Your task to perform on an android device: star an email in the gmail app Image 0: 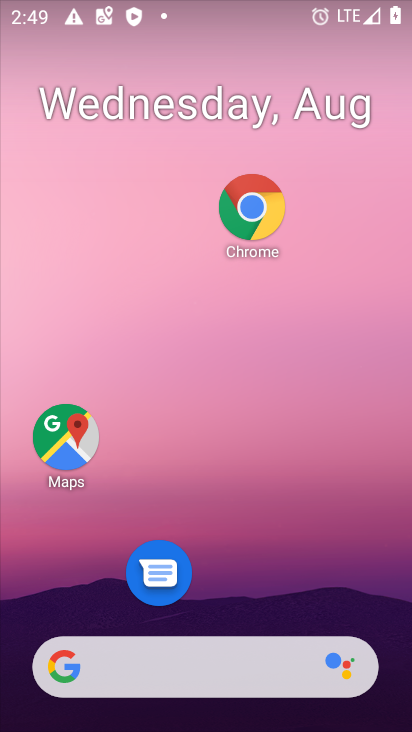
Step 0: drag from (221, 636) to (242, 222)
Your task to perform on an android device: star an email in the gmail app Image 1: 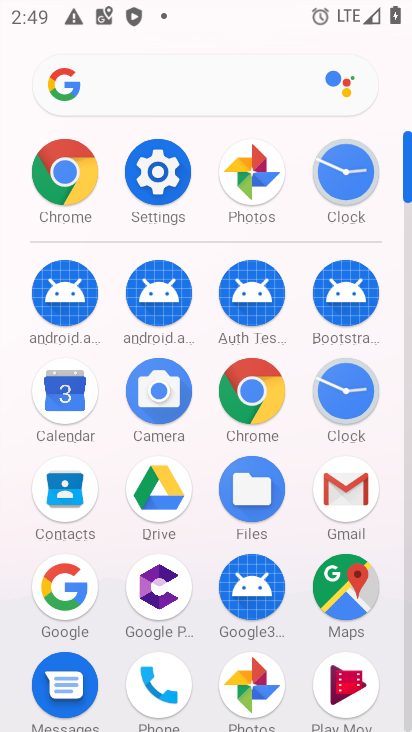
Step 1: click (365, 495)
Your task to perform on an android device: star an email in the gmail app Image 2: 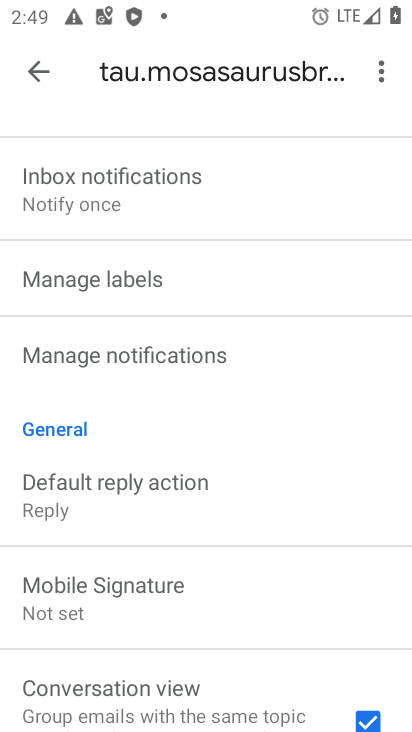
Step 2: click (37, 70)
Your task to perform on an android device: star an email in the gmail app Image 3: 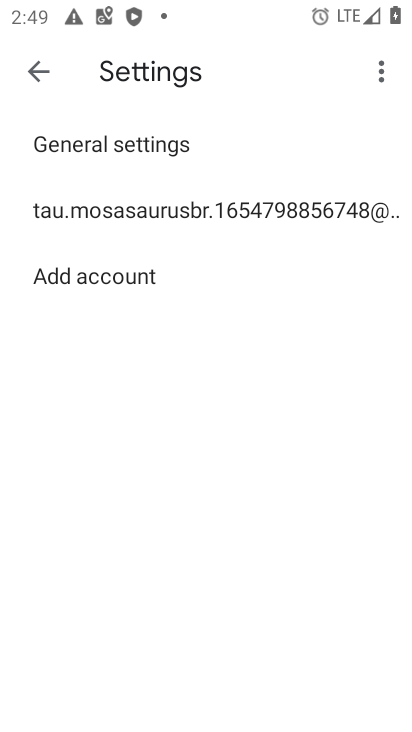
Step 3: click (37, 70)
Your task to perform on an android device: star an email in the gmail app Image 4: 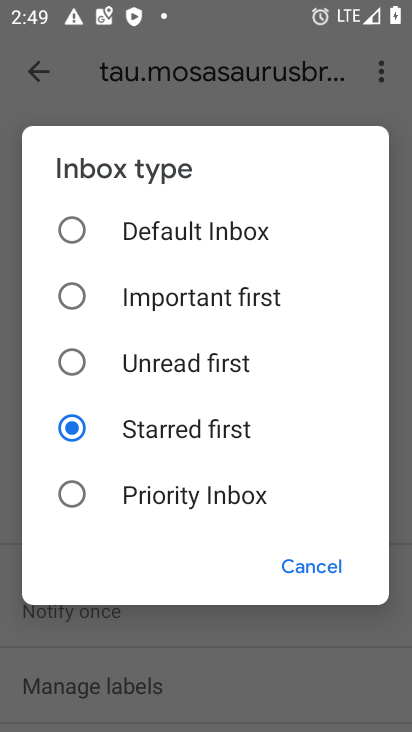
Step 4: click (310, 558)
Your task to perform on an android device: star an email in the gmail app Image 5: 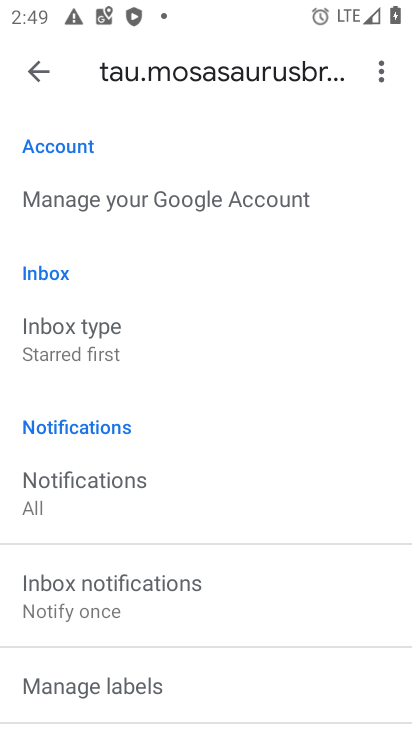
Step 5: click (36, 65)
Your task to perform on an android device: star an email in the gmail app Image 6: 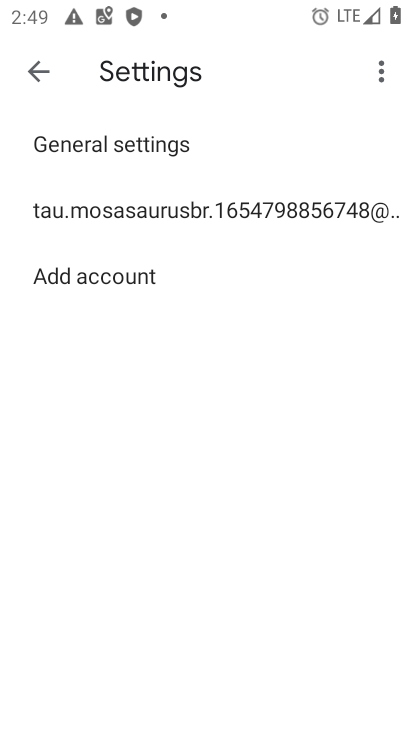
Step 6: click (39, 65)
Your task to perform on an android device: star an email in the gmail app Image 7: 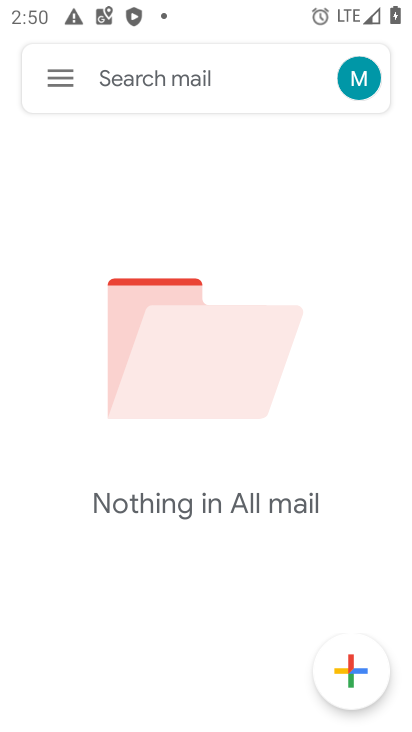
Step 7: click (55, 74)
Your task to perform on an android device: star an email in the gmail app Image 8: 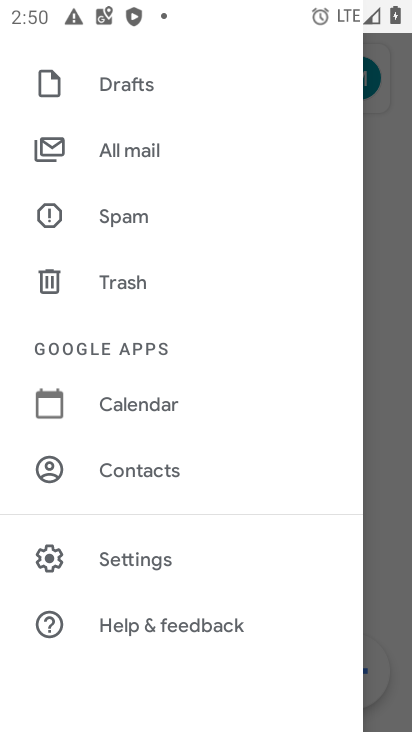
Step 8: drag from (147, 257) to (112, 585)
Your task to perform on an android device: star an email in the gmail app Image 9: 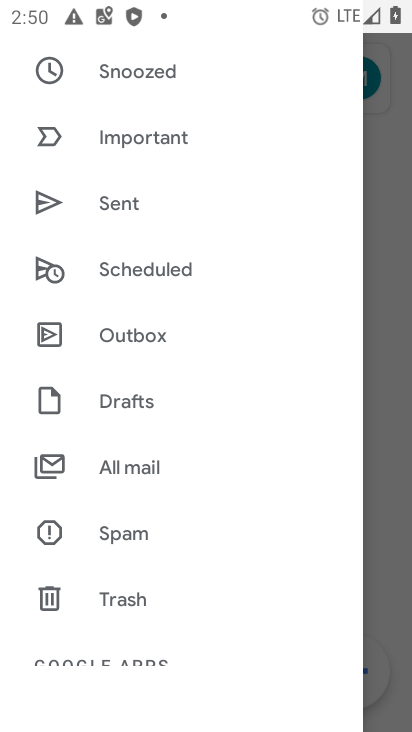
Step 9: click (97, 462)
Your task to perform on an android device: star an email in the gmail app Image 10: 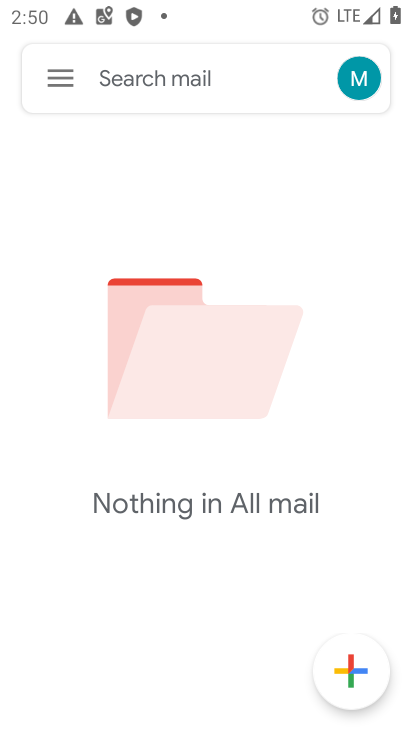
Step 10: task complete